Your task to perform on an android device: open sync settings in chrome Image 0: 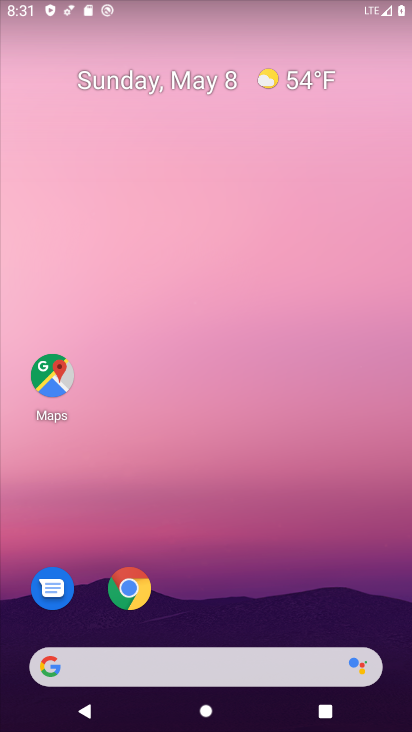
Step 0: click (138, 593)
Your task to perform on an android device: open sync settings in chrome Image 1: 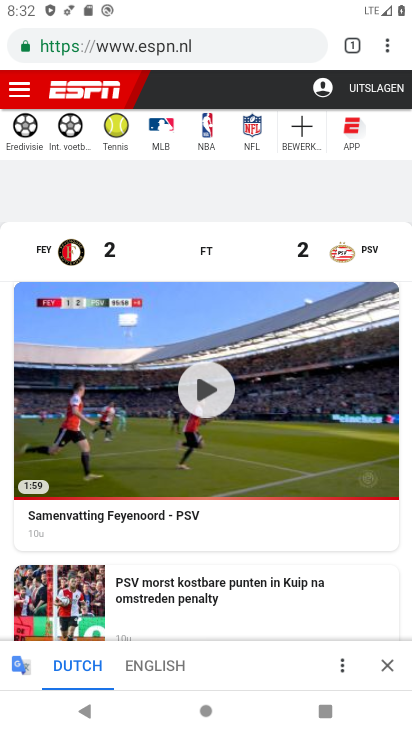
Step 1: click (387, 48)
Your task to perform on an android device: open sync settings in chrome Image 2: 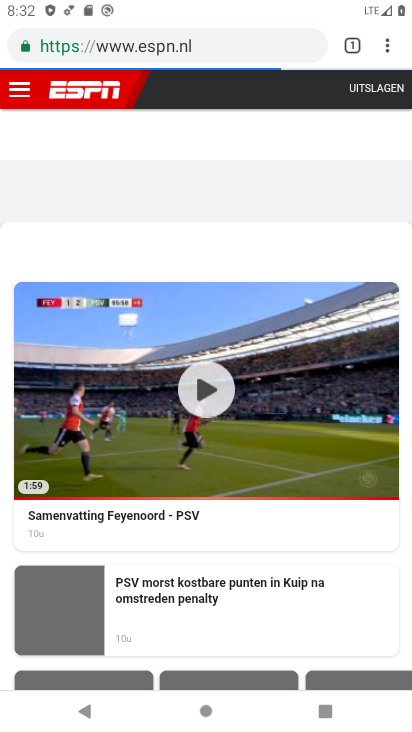
Step 2: click (392, 42)
Your task to perform on an android device: open sync settings in chrome Image 3: 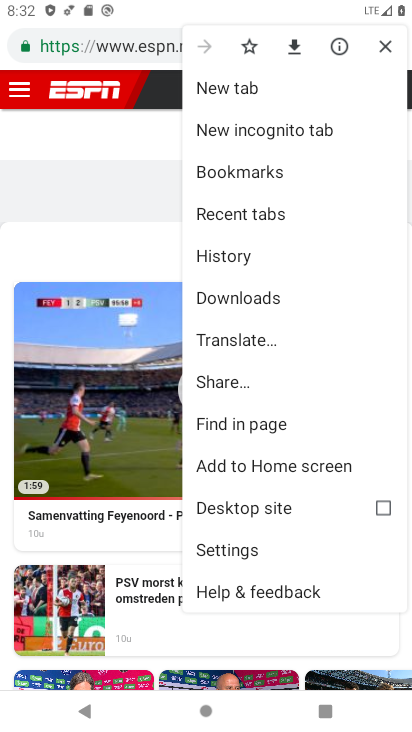
Step 3: click (216, 551)
Your task to perform on an android device: open sync settings in chrome Image 4: 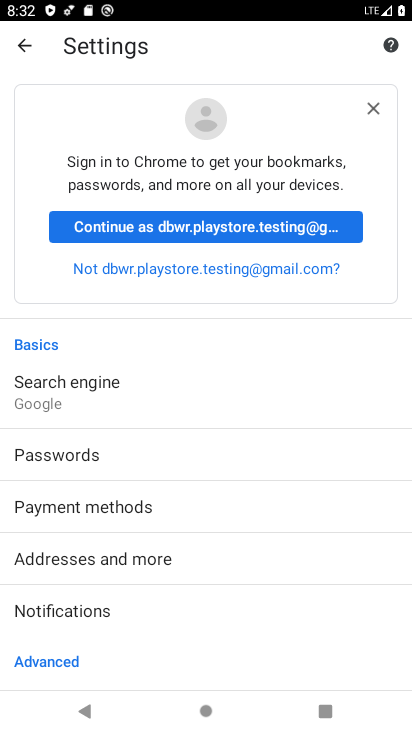
Step 4: drag from (164, 659) to (293, 257)
Your task to perform on an android device: open sync settings in chrome Image 5: 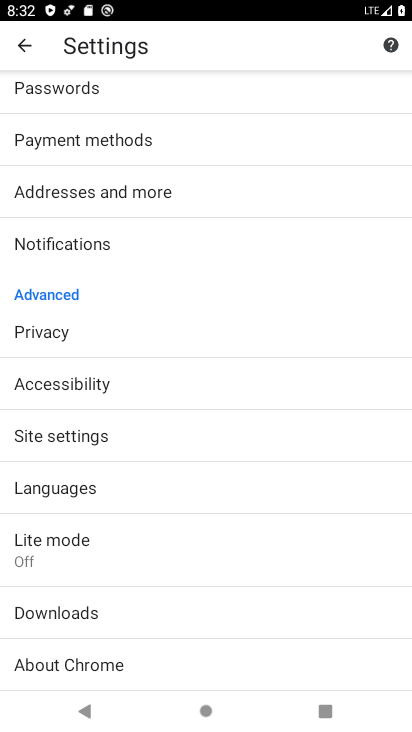
Step 5: click (80, 434)
Your task to perform on an android device: open sync settings in chrome Image 6: 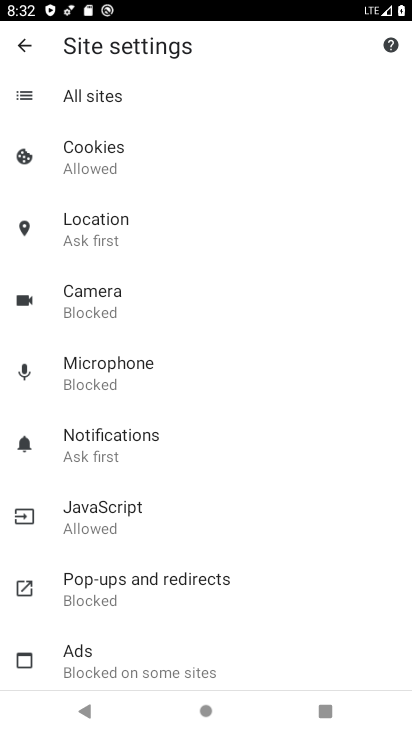
Step 6: drag from (88, 634) to (181, 286)
Your task to perform on an android device: open sync settings in chrome Image 7: 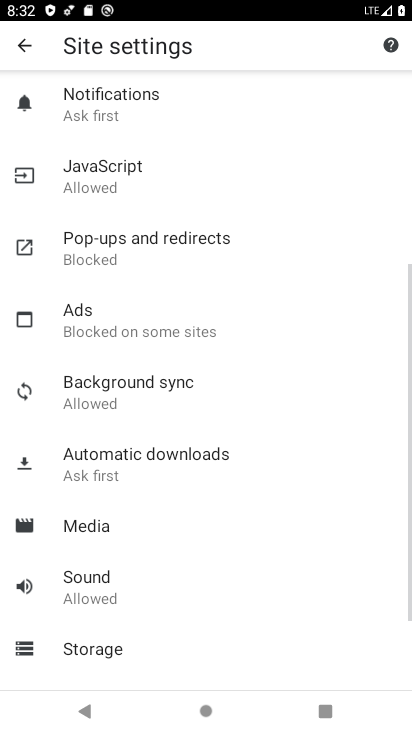
Step 7: click (189, 372)
Your task to perform on an android device: open sync settings in chrome Image 8: 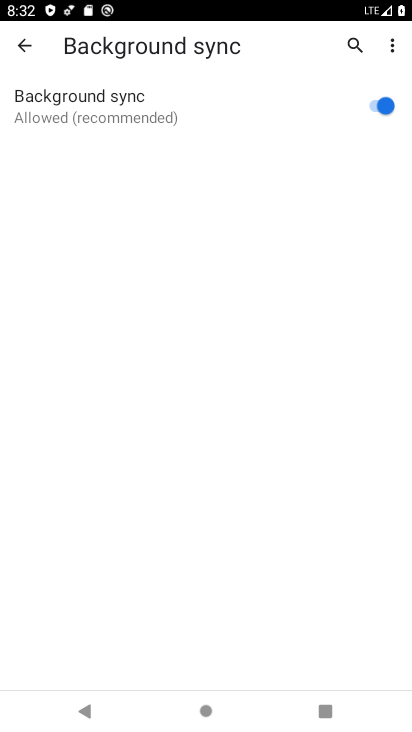
Step 8: click (209, 116)
Your task to perform on an android device: open sync settings in chrome Image 9: 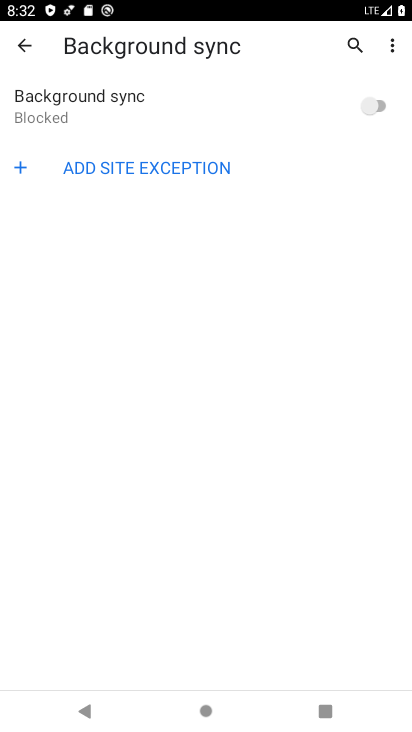
Step 9: click (208, 103)
Your task to perform on an android device: open sync settings in chrome Image 10: 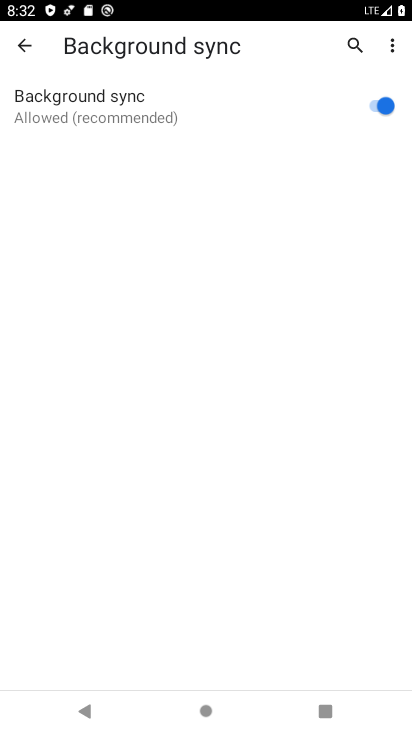
Step 10: task complete